Your task to perform on an android device: turn on priority inbox in the gmail app Image 0: 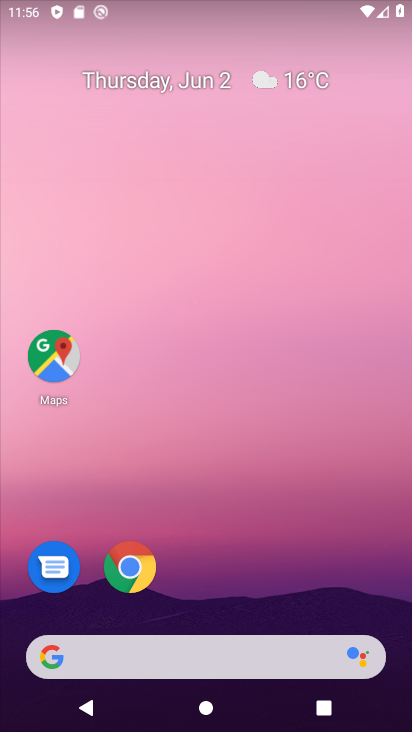
Step 0: drag from (315, 604) to (314, 365)
Your task to perform on an android device: turn on priority inbox in the gmail app Image 1: 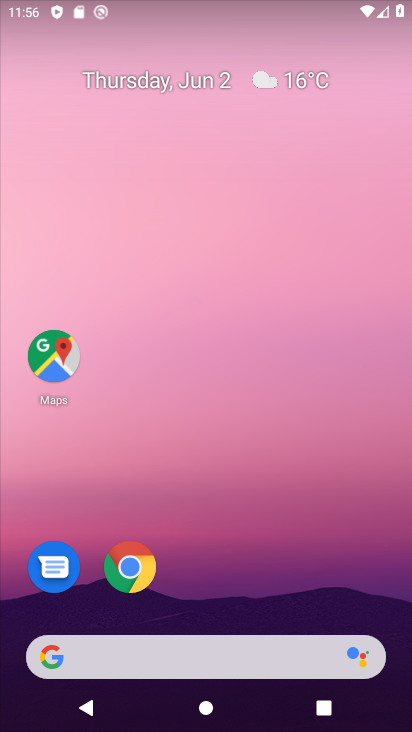
Step 1: drag from (298, 617) to (263, 241)
Your task to perform on an android device: turn on priority inbox in the gmail app Image 2: 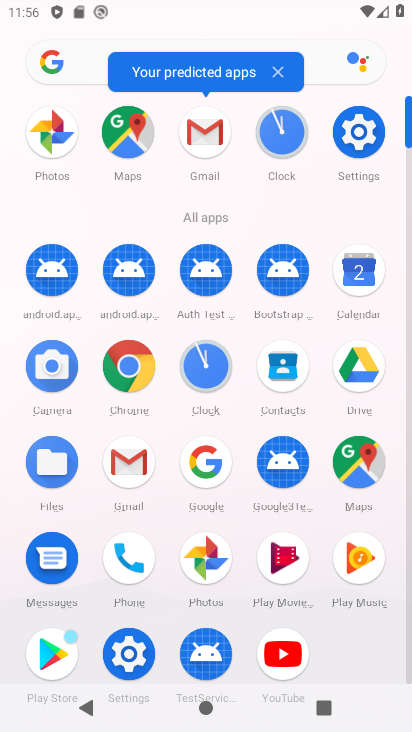
Step 2: click (129, 460)
Your task to perform on an android device: turn on priority inbox in the gmail app Image 3: 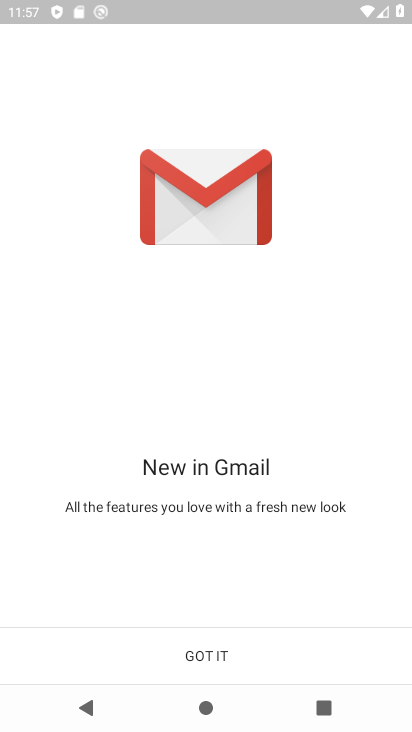
Step 3: click (202, 645)
Your task to perform on an android device: turn on priority inbox in the gmail app Image 4: 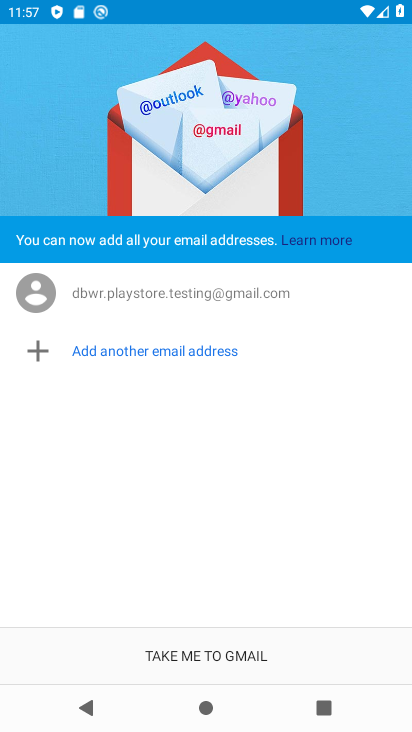
Step 4: click (202, 645)
Your task to perform on an android device: turn on priority inbox in the gmail app Image 5: 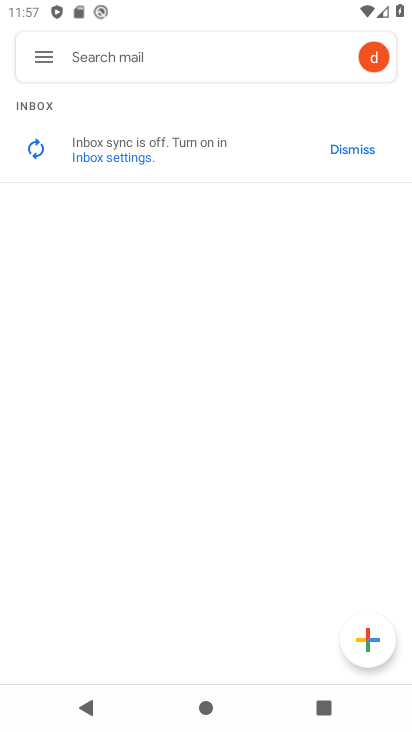
Step 5: click (36, 52)
Your task to perform on an android device: turn on priority inbox in the gmail app Image 6: 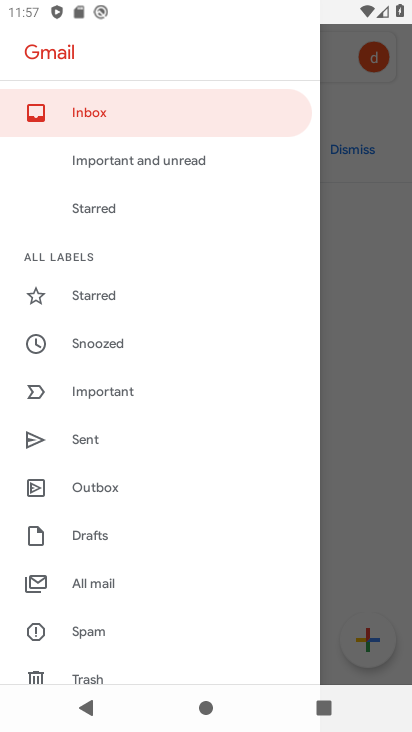
Step 6: drag from (58, 520) to (53, 233)
Your task to perform on an android device: turn on priority inbox in the gmail app Image 7: 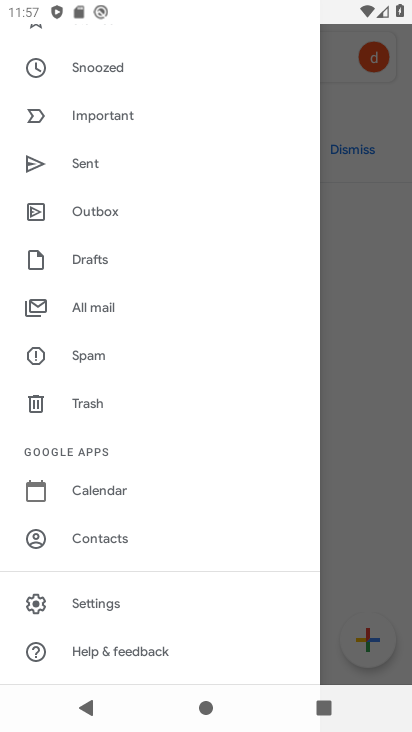
Step 7: click (66, 597)
Your task to perform on an android device: turn on priority inbox in the gmail app Image 8: 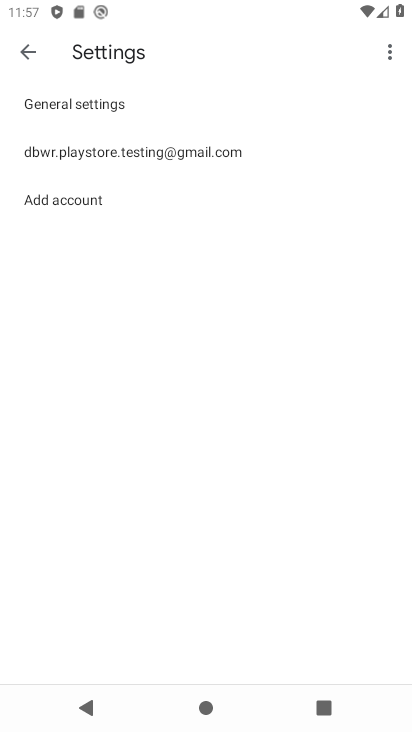
Step 8: click (72, 151)
Your task to perform on an android device: turn on priority inbox in the gmail app Image 9: 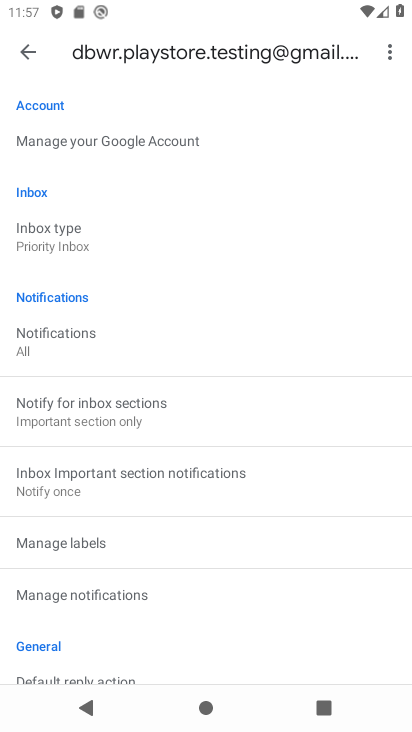
Step 9: task complete